Your task to perform on an android device: open a bookmark in the chrome app Image 0: 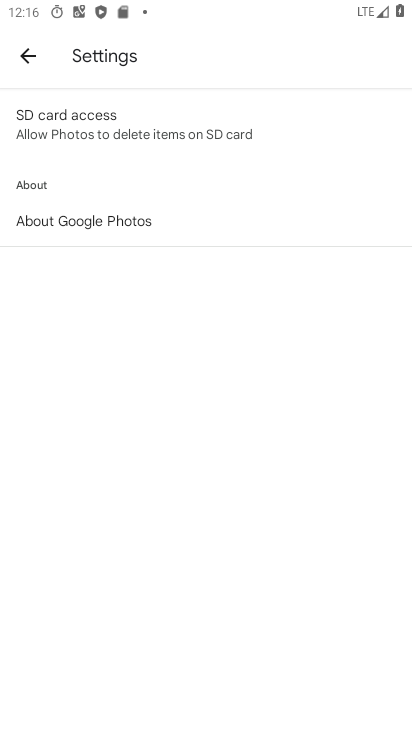
Step 0: press home button
Your task to perform on an android device: open a bookmark in the chrome app Image 1: 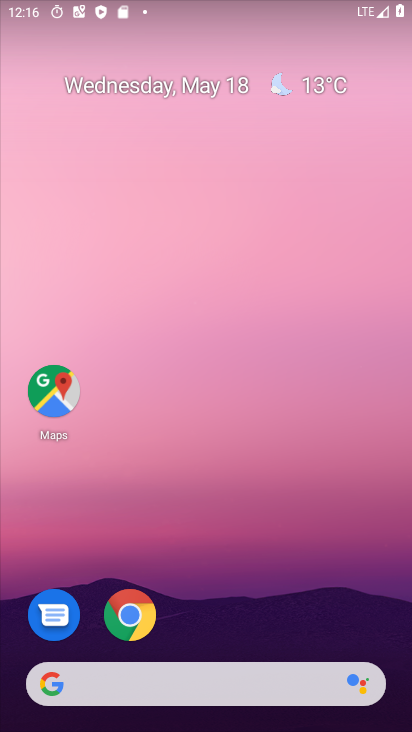
Step 1: click (127, 612)
Your task to perform on an android device: open a bookmark in the chrome app Image 2: 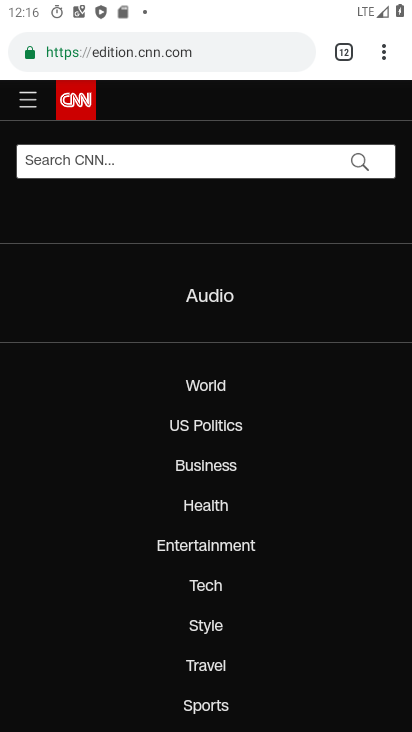
Step 2: task complete